Your task to perform on an android device: Go to Google Image 0: 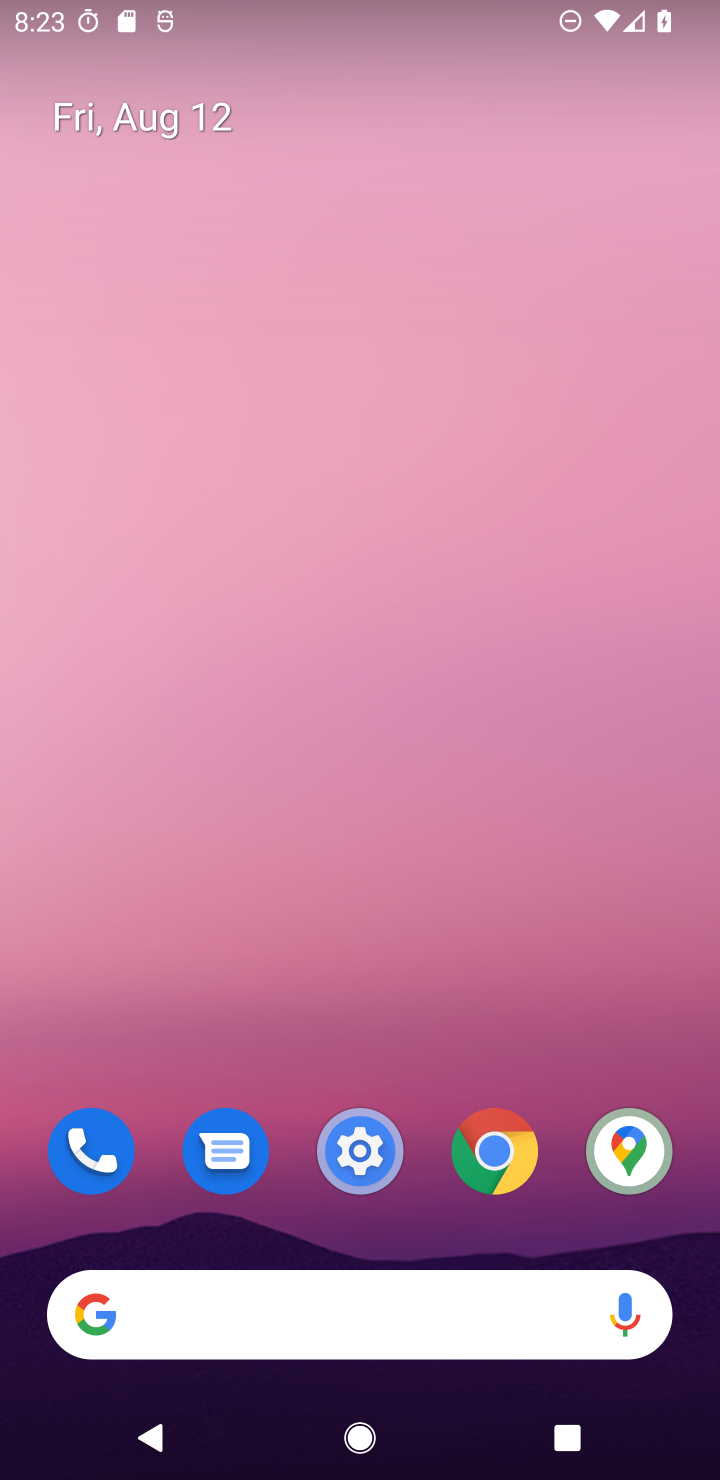
Step 0: drag from (410, 894) to (466, 32)
Your task to perform on an android device: Go to Google Image 1: 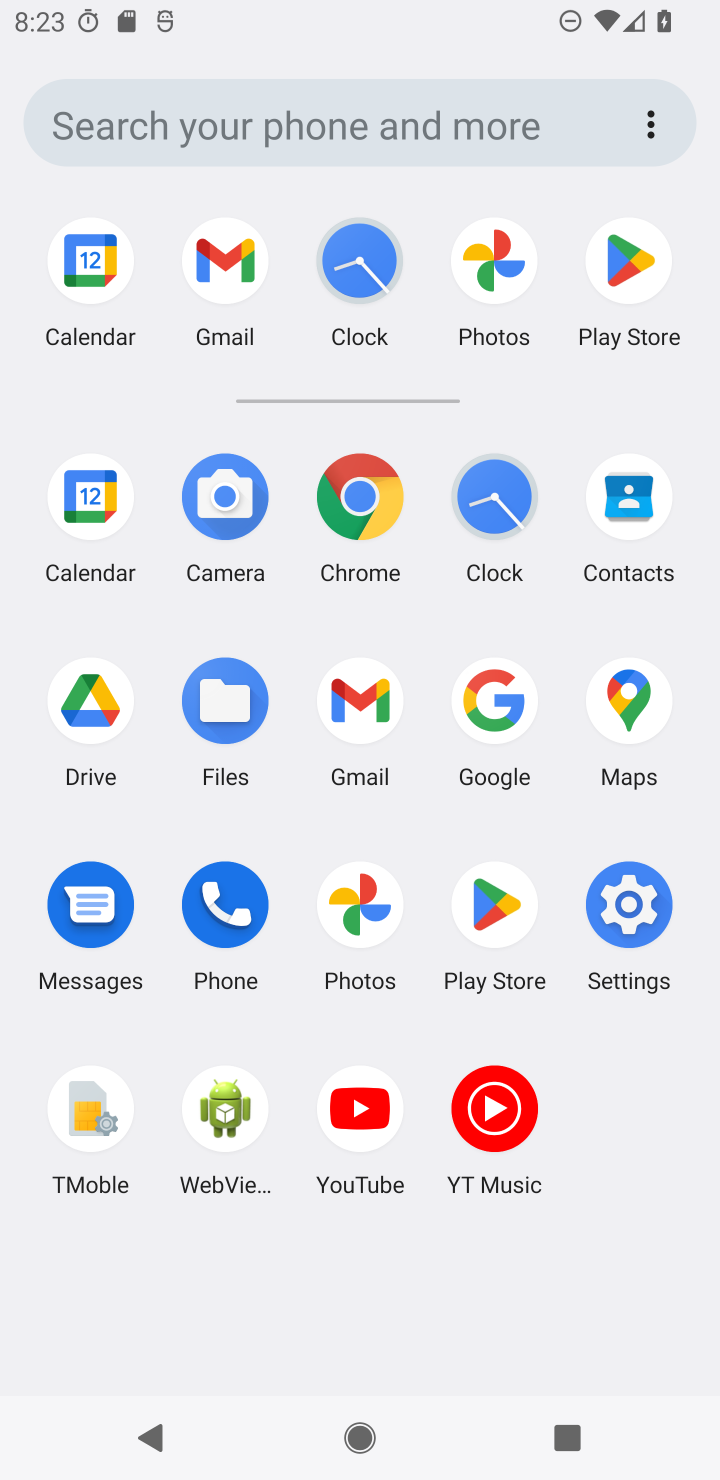
Step 1: click (465, 699)
Your task to perform on an android device: Go to Google Image 2: 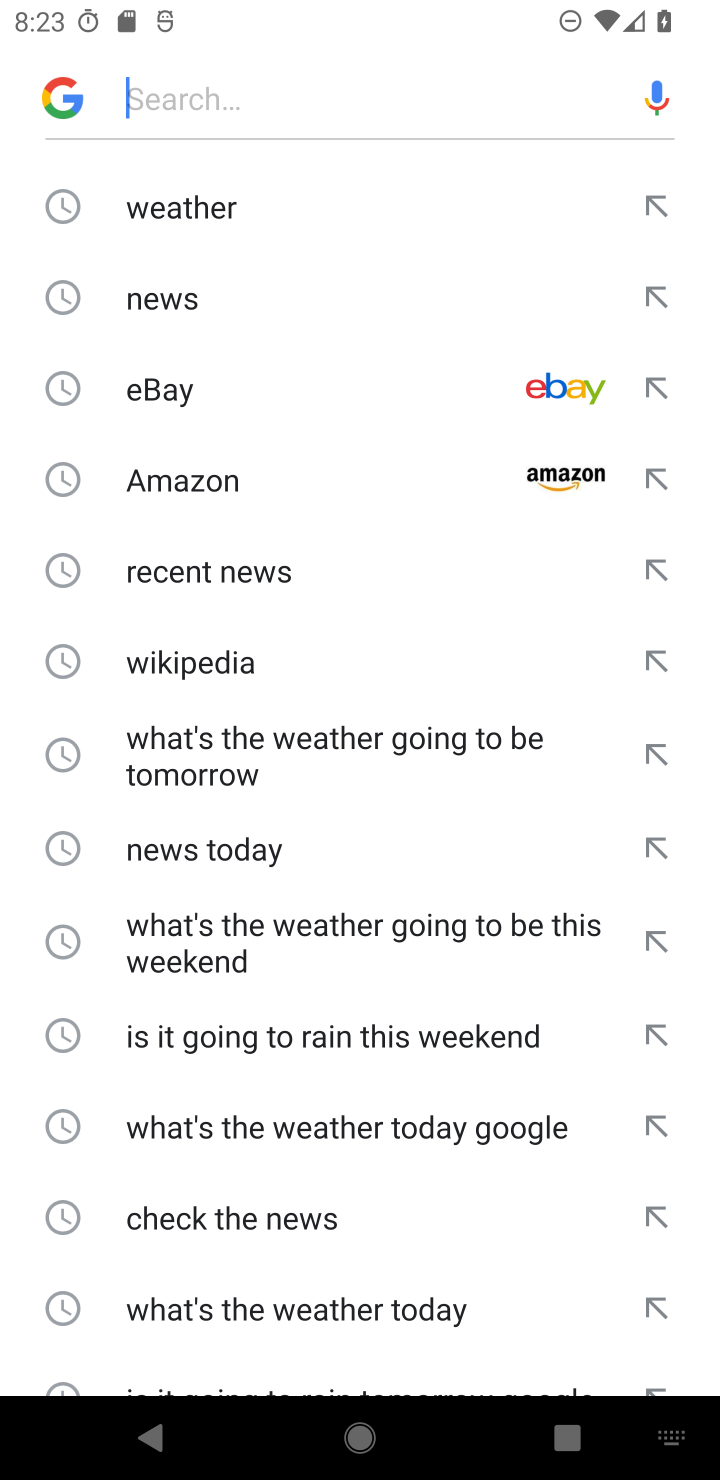
Step 2: task complete